Your task to perform on an android device: Open the phone app and click the voicemail tab. Image 0: 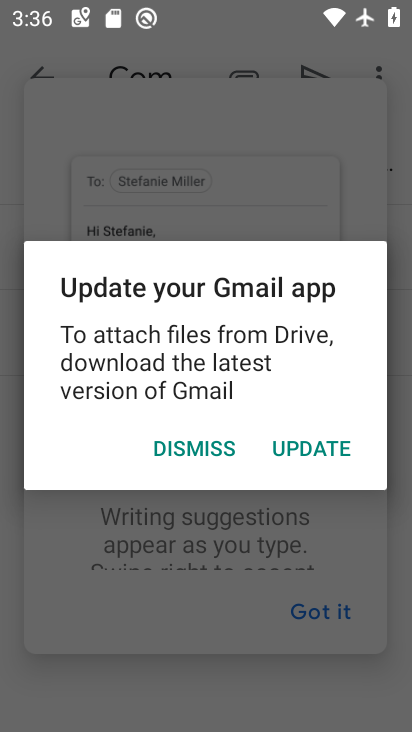
Step 0: press home button
Your task to perform on an android device: Open the phone app and click the voicemail tab. Image 1: 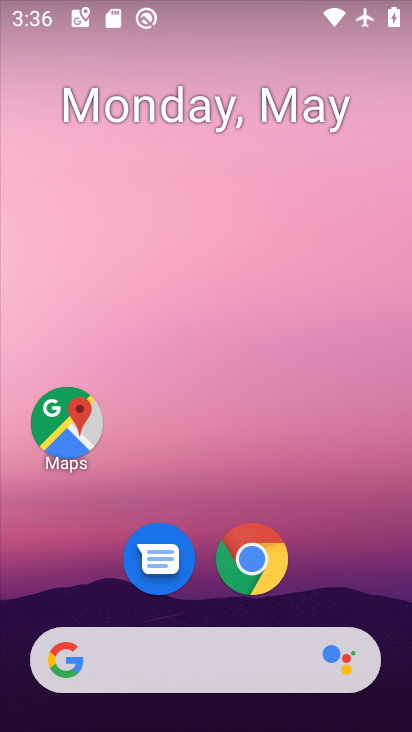
Step 1: drag from (297, 578) to (285, 117)
Your task to perform on an android device: Open the phone app and click the voicemail tab. Image 2: 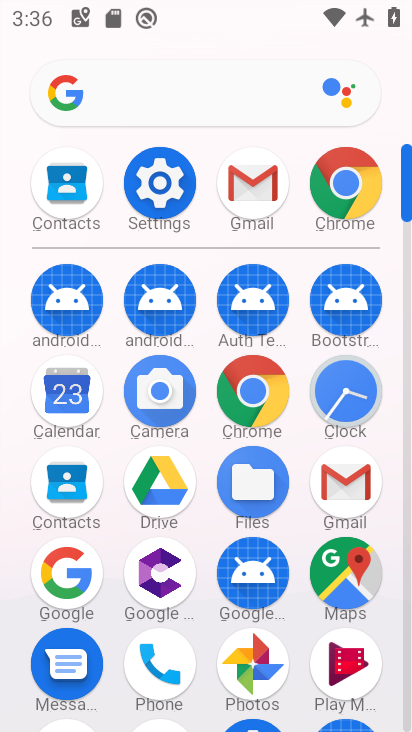
Step 2: click (158, 679)
Your task to perform on an android device: Open the phone app and click the voicemail tab. Image 3: 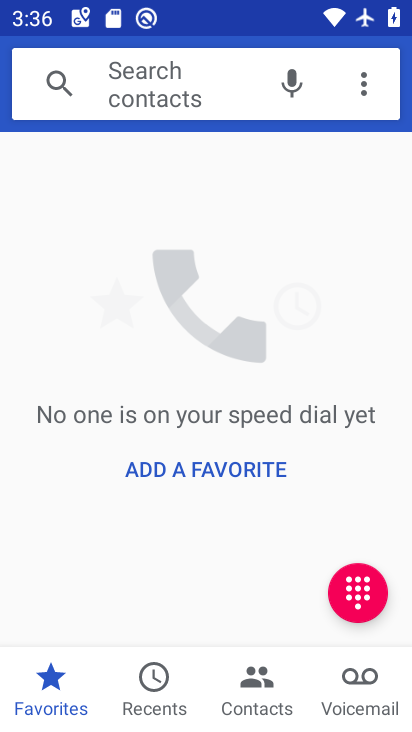
Step 3: click (350, 709)
Your task to perform on an android device: Open the phone app and click the voicemail tab. Image 4: 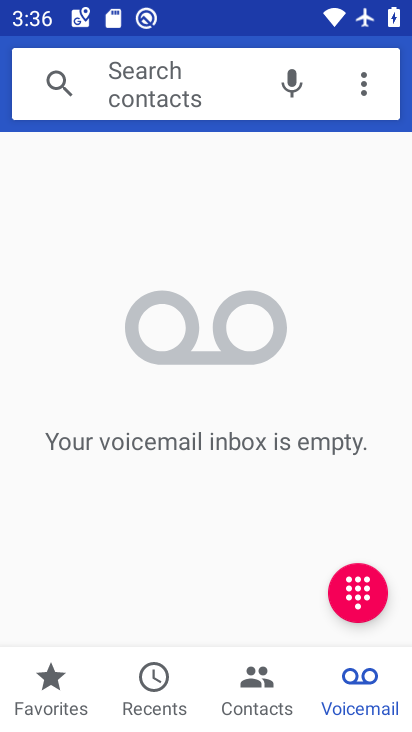
Step 4: task complete